Your task to perform on an android device: Open Reddit.com Image 0: 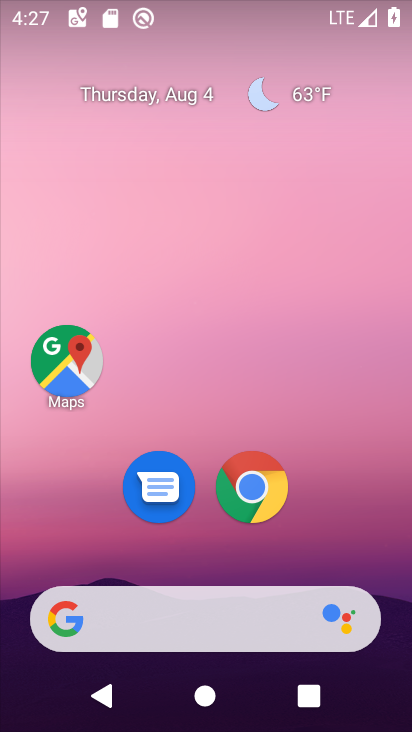
Step 0: click (275, 484)
Your task to perform on an android device: Open Reddit.com Image 1: 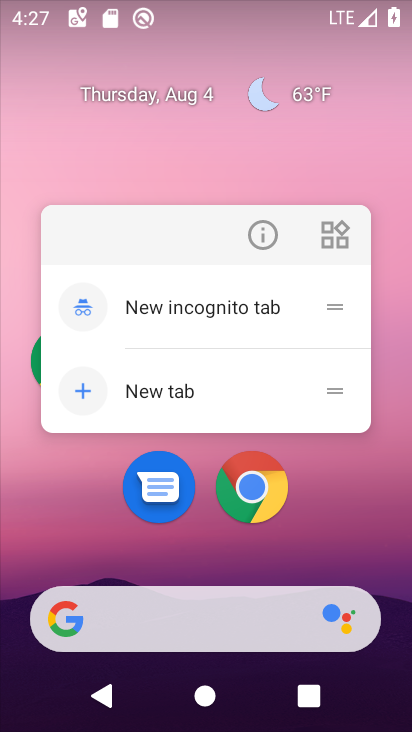
Step 1: click (257, 489)
Your task to perform on an android device: Open Reddit.com Image 2: 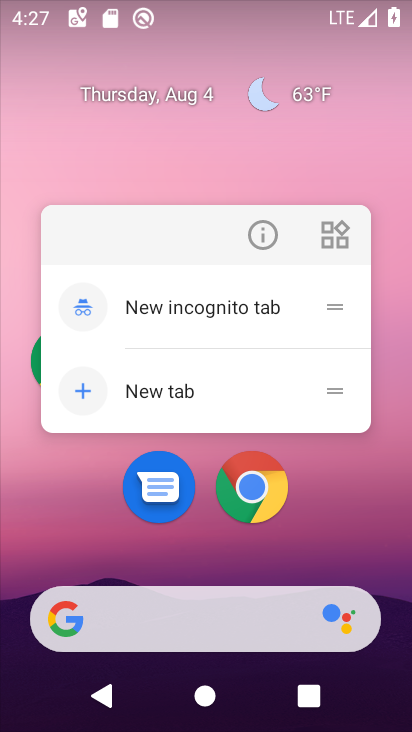
Step 2: click (251, 489)
Your task to perform on an android device: Open Reddit.com Image 3: 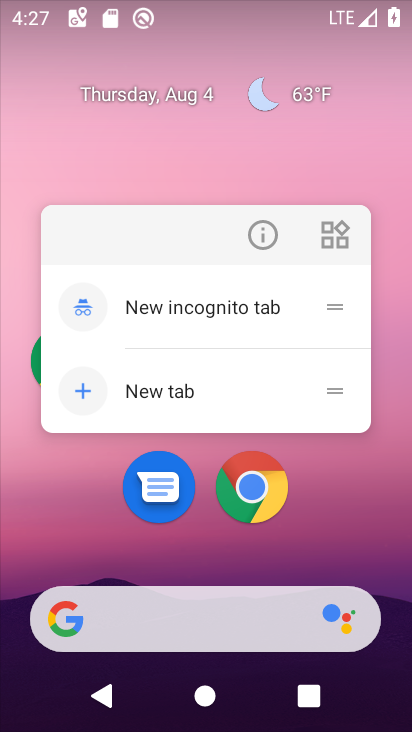
Step 3: click (245, 489)
Your task to perform on an android device: Open Reddit.com Image 4: 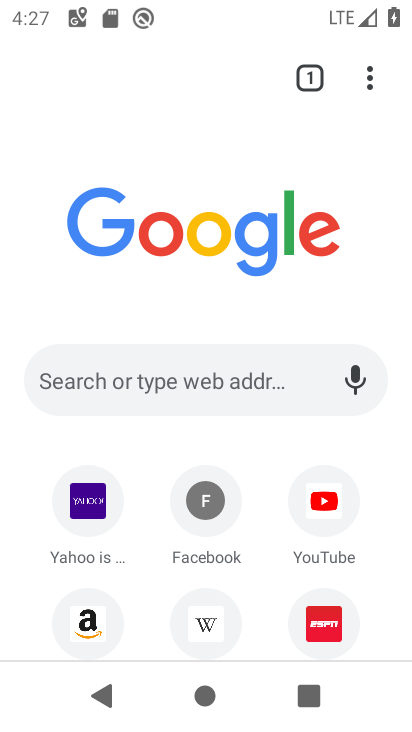
Step 4: click (95, 378)
Your task to perform on an android device: Open Reddit.com Image 5: 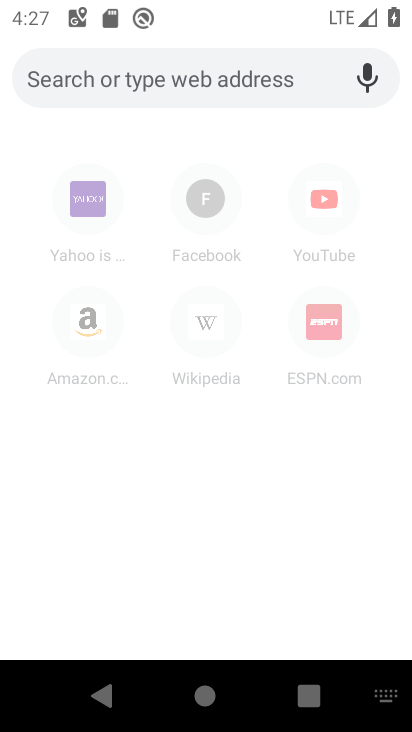
Step 5: type "reddit.com"
Your task to perform on an android device: Open Reddit.com Image 6: 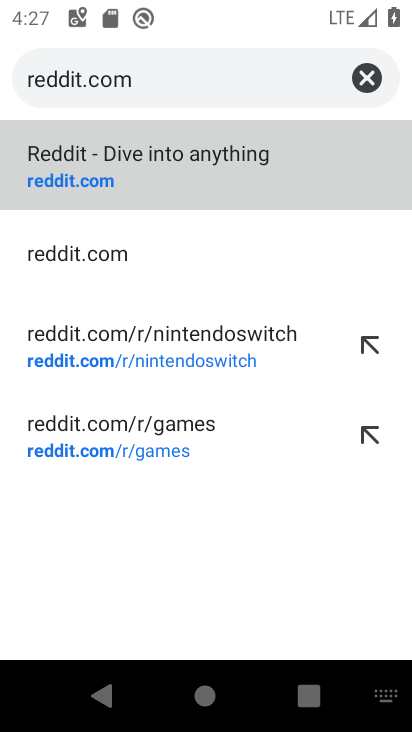
Step 6: click (254, 163)
Your task to perform on an android device: Open Reddit.com Image 7: 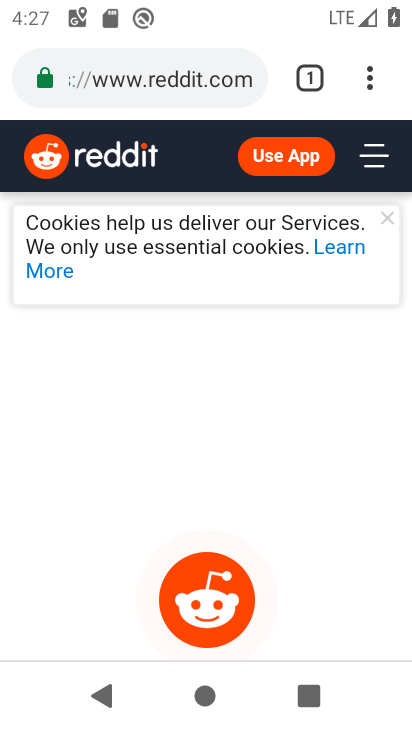
Step 7: task complete